Your task to perform on an android device: turn on translation in the chrome app Image 0: 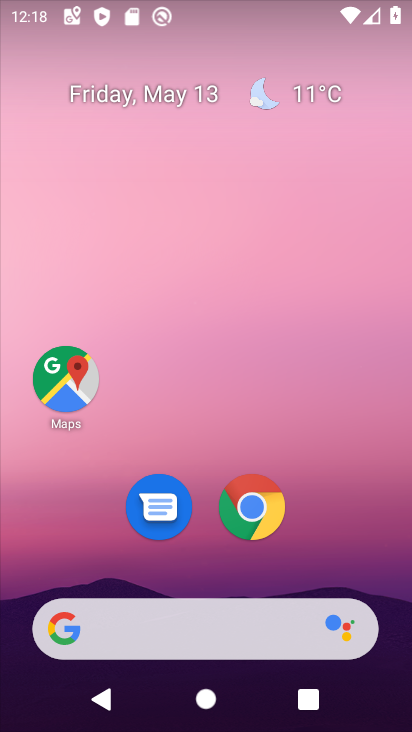
Step 0: click (242, 535)
Your task to perform on an android device: turn on translation in the chrome app Image 1: 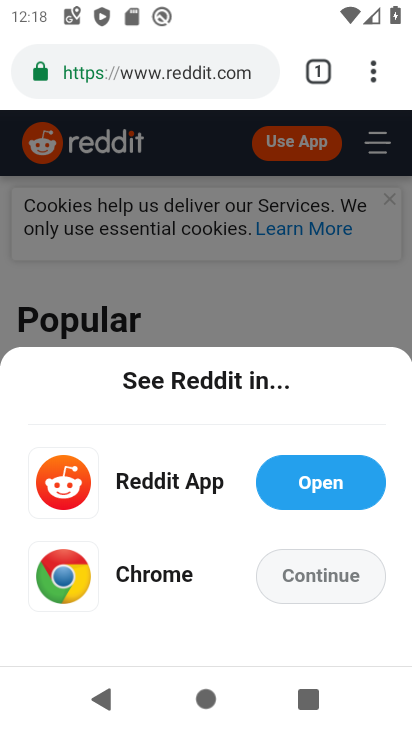
Step 1: click (362, 82)
Your task to perform on an android device: turn on translation in the chrome app Image 2: 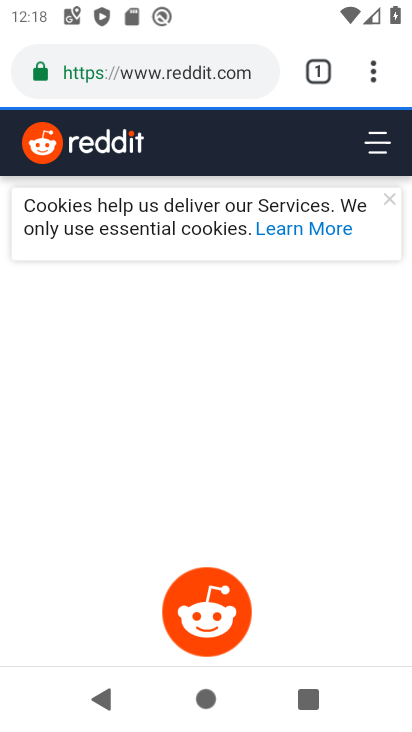
Step 2: click (374, 69)
Your task to perform on an android device: turn on translation in the chrome app Image 3: 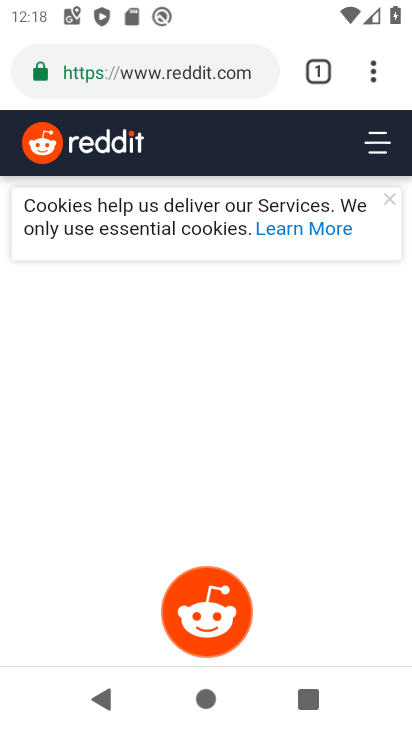
Step 3: click (374, 69)
Your task to perform on an android device: turn on translation in the chrome app Image 4: 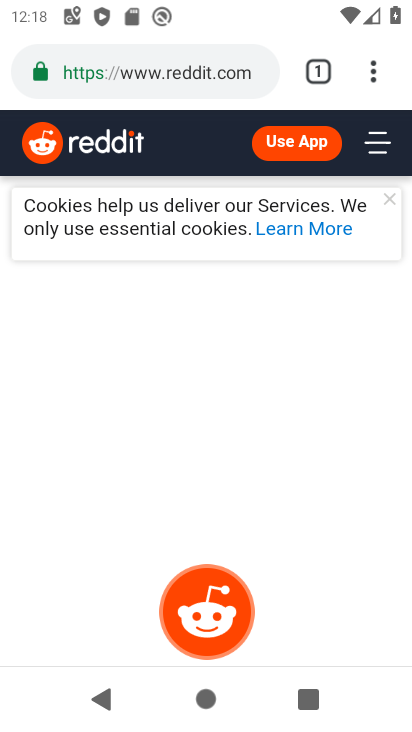
Step 4: drag from (370, 68) to (136, 512)
Your task to perform on an android device: turn on translation in the chrome app Image 5: 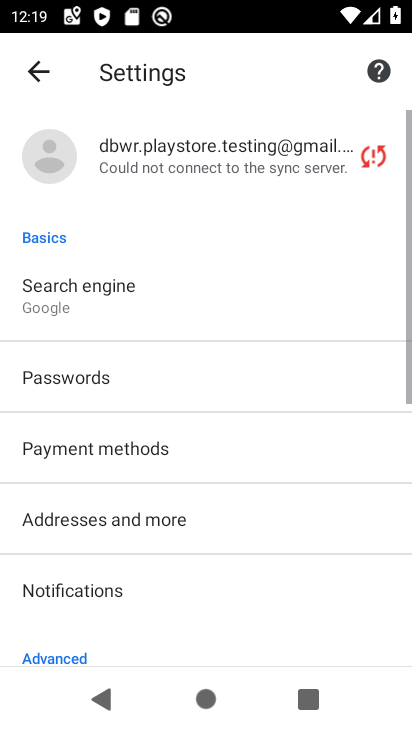
Step 5: drag from (135, 511) to (84, 26)
Your task to perform on an android device: turn on translation in the chrome app Image 6: 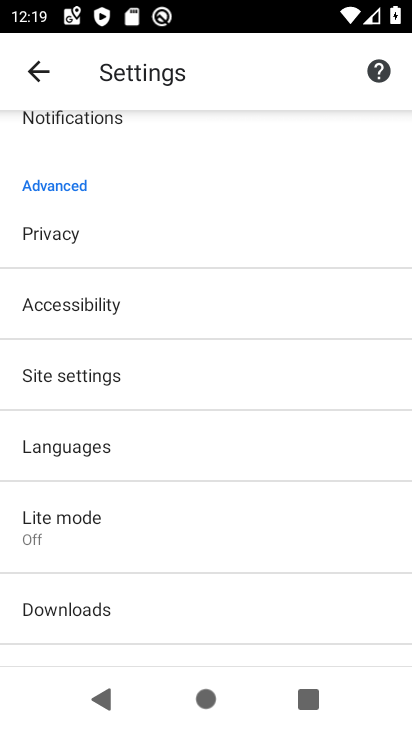
Step 6: drag from (129, 531) to (116, 20)
Your task to perform on an android device: turn on translation in the chrome app Image 7: 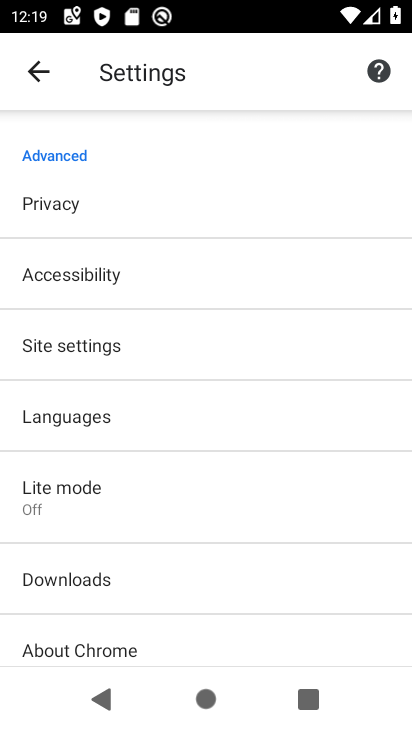
Step 7: click (103, 431)
Your task to perform on an android device: turn on translation in the chrome app Image 8: 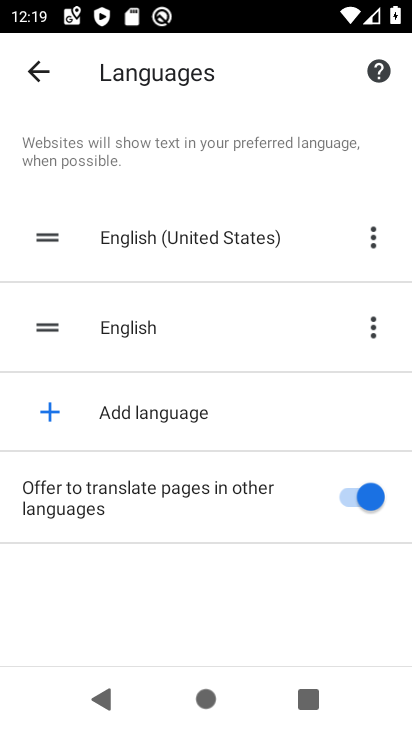
Step 8: task complete